Your task to perform on an android device: turn off smart reply in the gmail app Image 0: 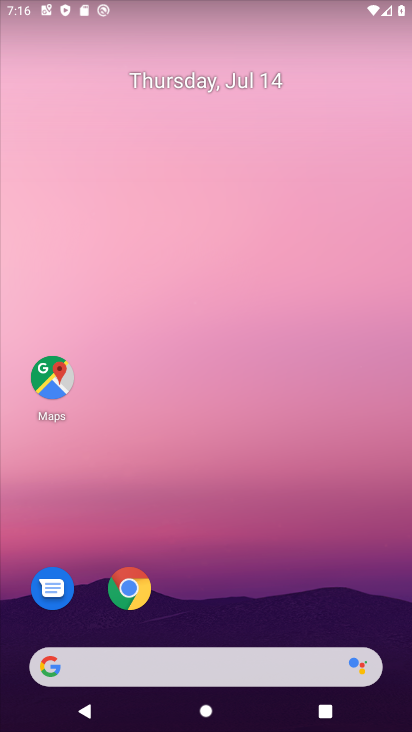
Step 0: drag from (369, 563) to (282, 43)
Your task to perform on an android device: turn off smart reply in the gmail app Image 1: 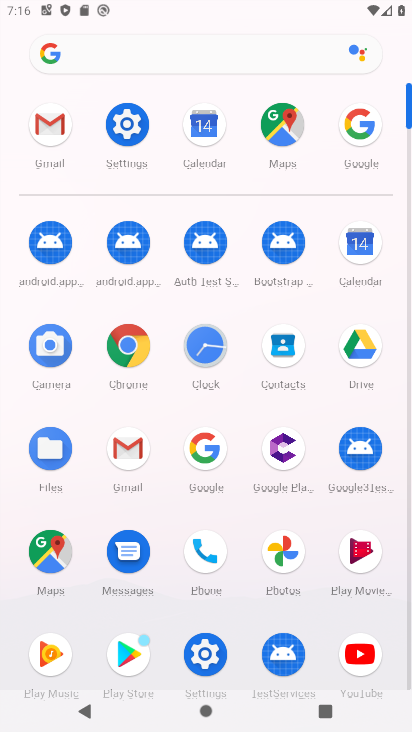
Step 1: click (46, 129)
Your task to perform on an android device: turn off smart reply in the gmail app Image 2: 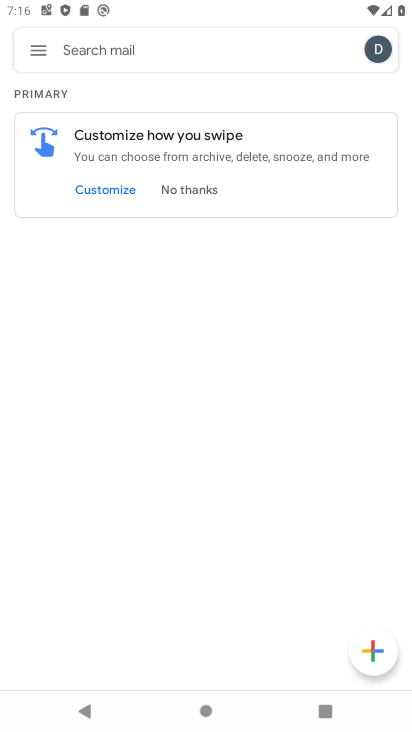
Step 2: click (35, 38)
Your task to perform on an android device: turn off smart reply in the gmail app Image 3: 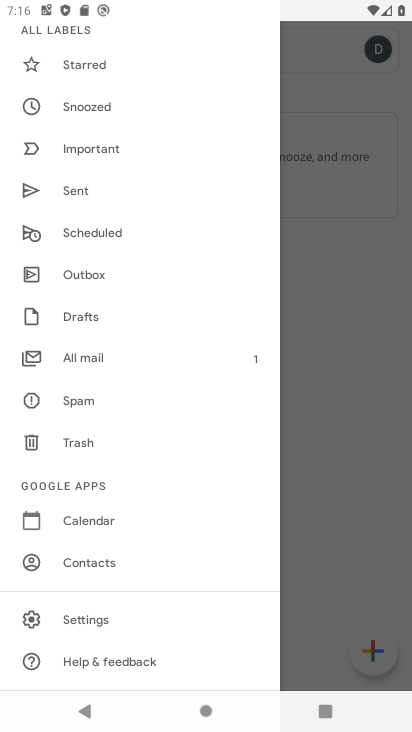
Step 3: click (90, 609)
Your task to perform on an android device: turn off smart reply in the gmail app Image 4: 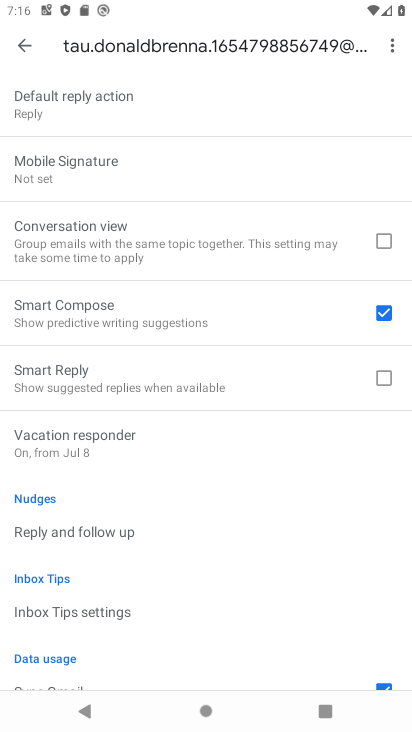
Step 4: task complete